Your task to perform on an android device: Open the gallery Image 0: 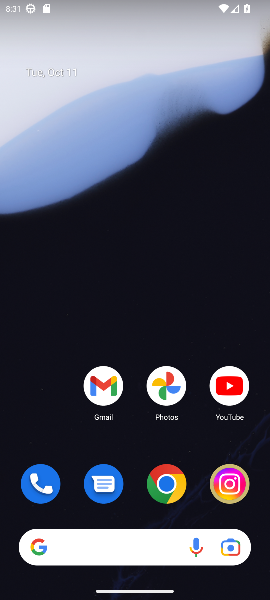
Step 0: drag from (128, 556) to (187, 110)
Your task to perform on an android device: Open the gallery Image 1: 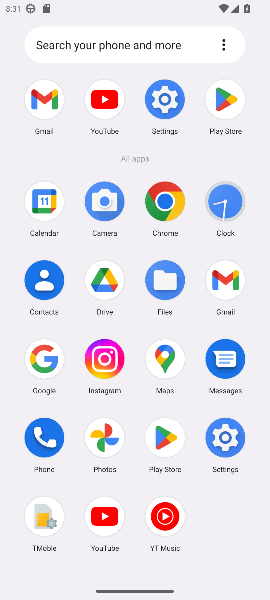
Step 1: click (226, 440)
Your task to perform on an android device: Open the gallery Image 2: 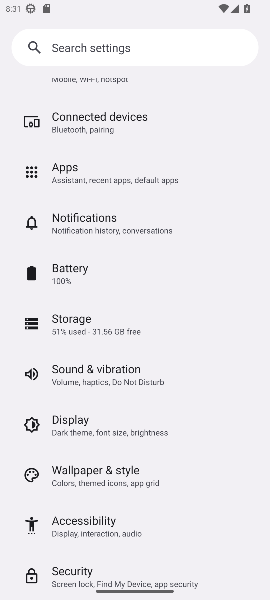
Step 2: press back button
Your task to perform on an android device: Open the gallery Image 3: 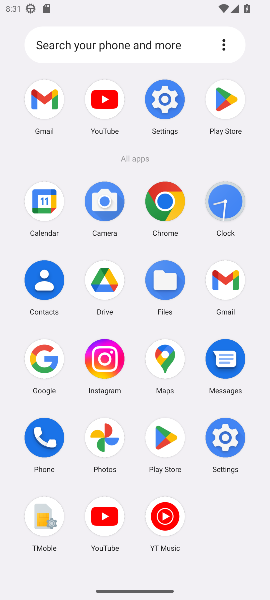
Step 3: click (103, 442)
Your task to perform on an android device: Open the gallery Image 4: 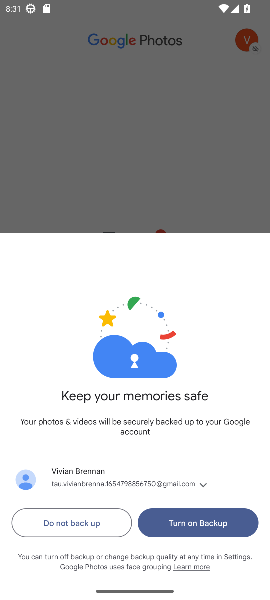
Step 4: click (195, 521)
Your task to perform on an android device: Open the gallery Image 5: 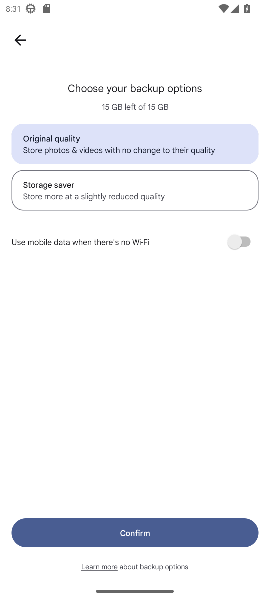
Step 5: click (163, 533)
Your task to perform on an android device: Open the gallery Image 6: 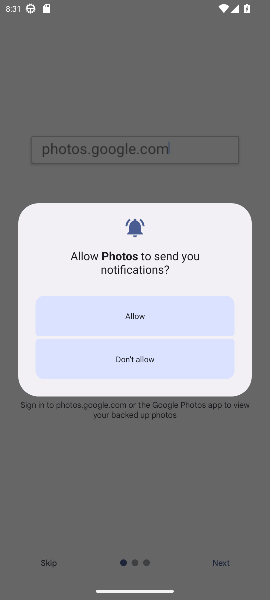
Step 6: click (137, 310)
Your task to perform on an android device: Open the gallery Image 7: 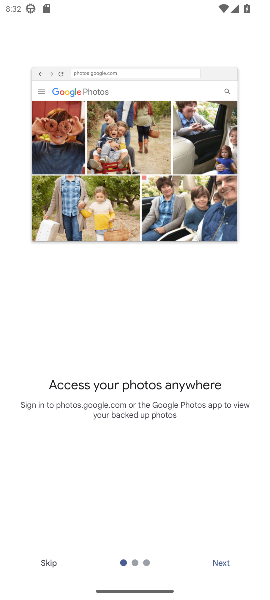
Step 7: click (49, 560)
Your task to perform on an android device: Open the gallery Image 8: 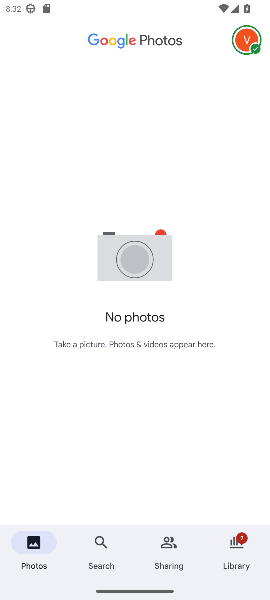
Step 8: click (176, 540)
Your task to perform on an android device: Open the gallery Image 9: 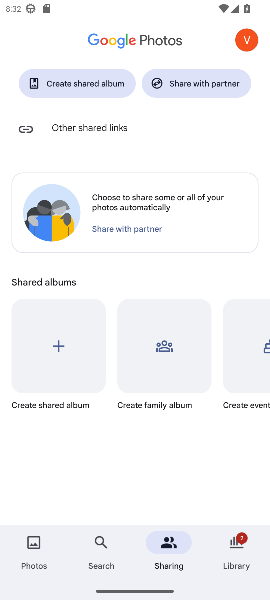
Step 9: click (241, 41)
Your task to perform on an android device: Open the gallery Image 10: 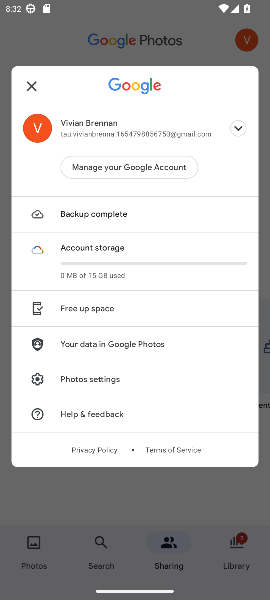
Step 10: click (101, 59)
Your task to perform on an android device: Open the gallery Image 11: 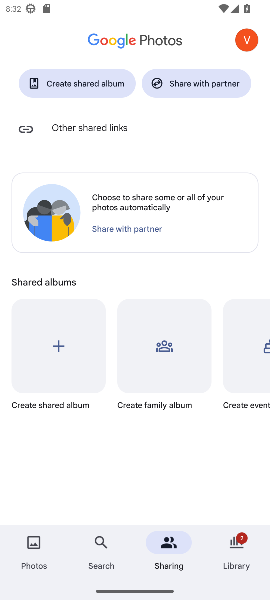
Step 11: task complete